Your task to perform on an android device: toggle notifications settings in the gmail app Image 0: 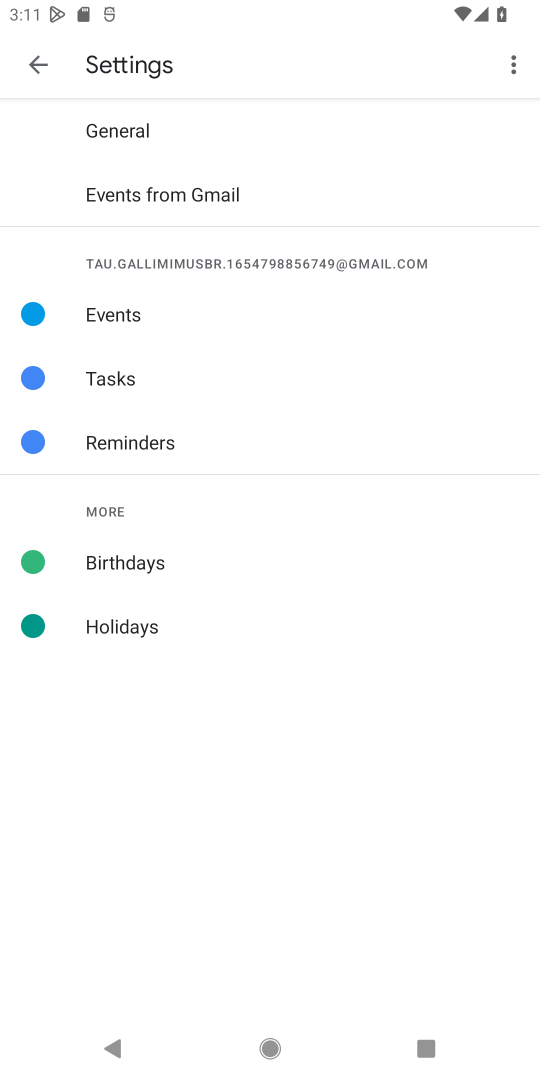
Step 0: press home button
Your task to perform on an android device: toggle notifications settings in the gmail app Image 1: 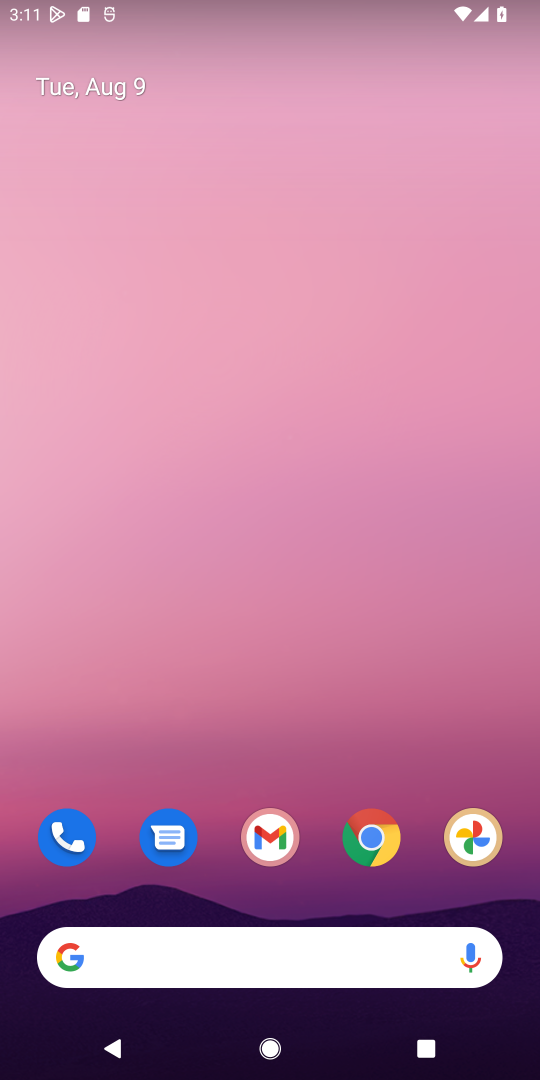
Step 1: drag from (220, 1000) to (321, 513)
Your task to perform on an android device: toggle notifications settings in the gmail app Image 2: 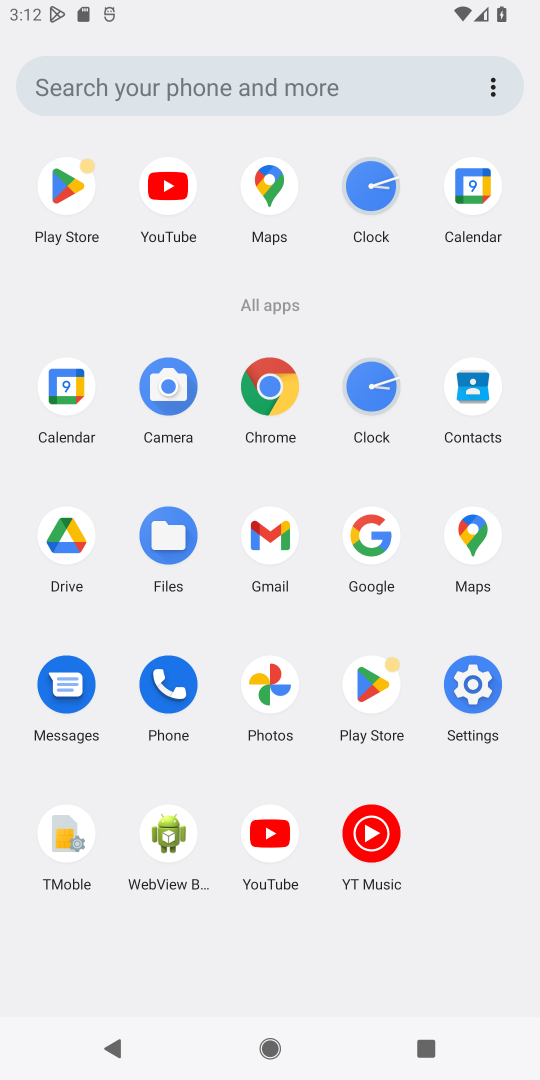
Step 2: click (264, 527)
Your task to perform on an android device: toggle notifications settings in the gmail app Image 3: 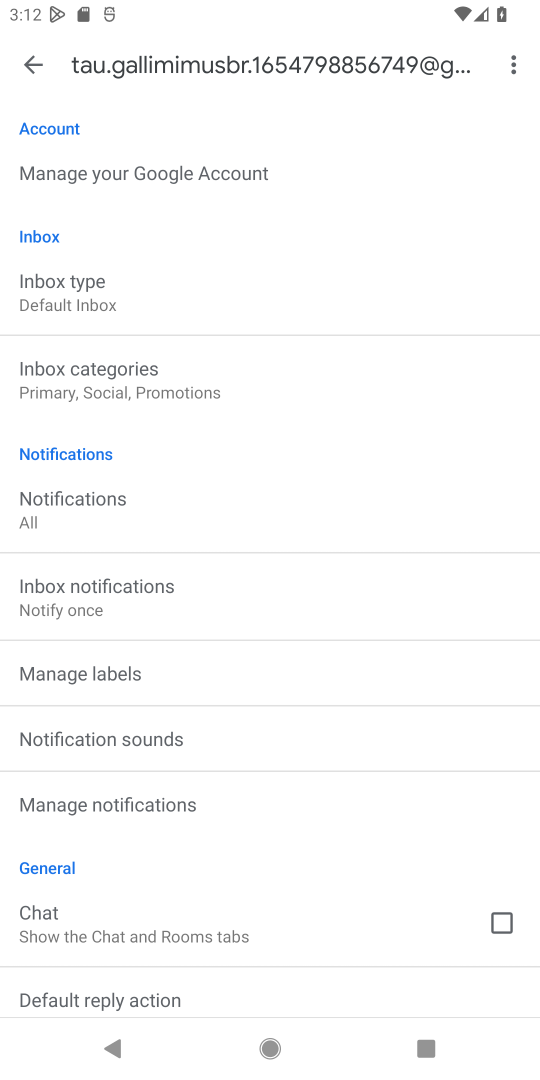
Step 3: click (125, 508)
Your task to perform on an android device: toggle notifications settings in the gmail app Image 4: 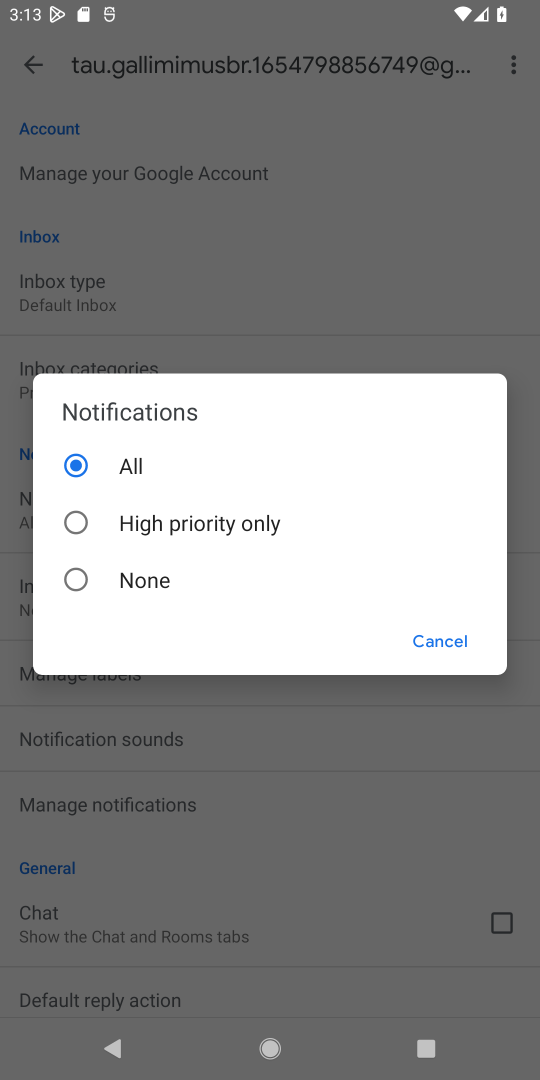
Step 4: click (130, 574)
Your task to perform on an android device: toggle notifications settings in the gmail app Image 5: 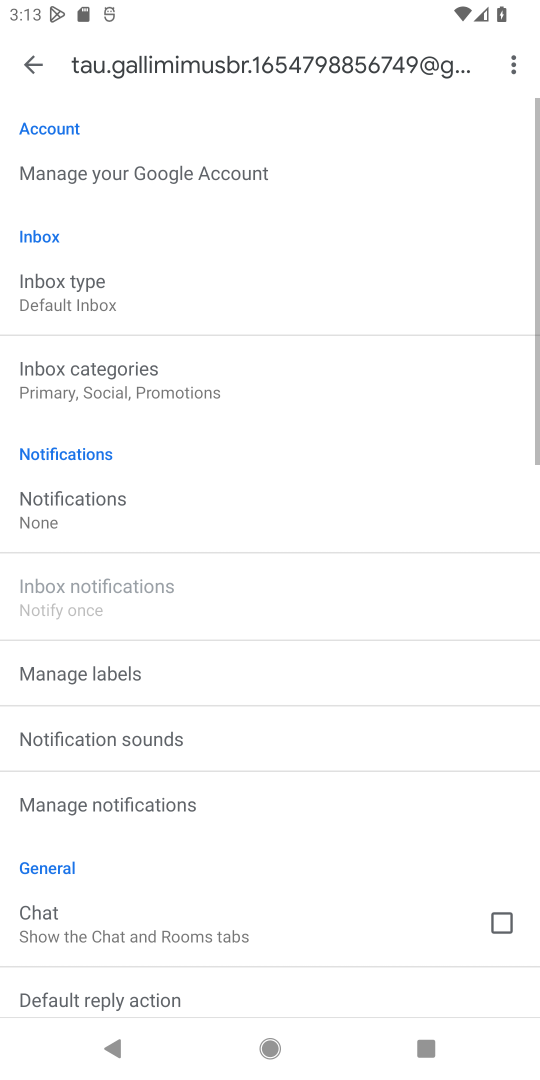
Step 5: task complete